Your task to perform on an android device: empty trash in google photos Image 0: 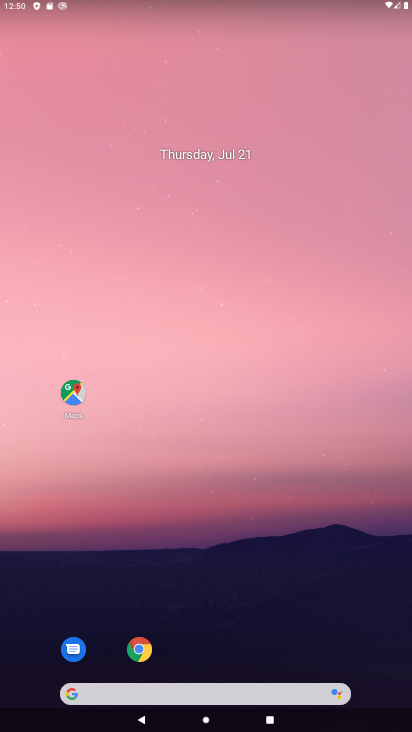
Step 0: drag from (364, 643) to (241, 83)
Your task to perform on an android device: empty trash in google photos Image 1: 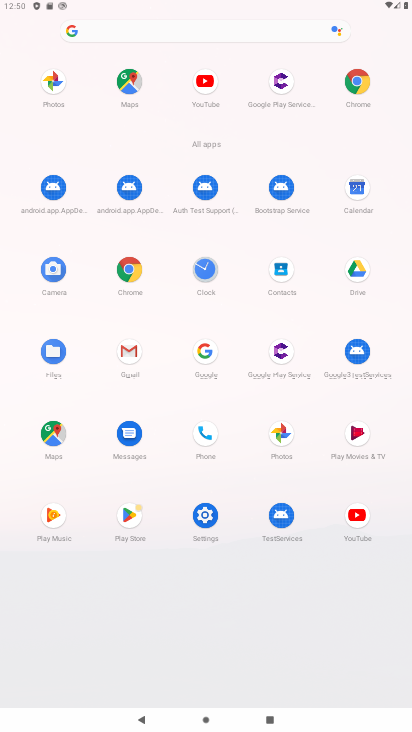
Step 1: click (132, 357)
Your task to perform on an android device: empty trash in google photos Image 2: 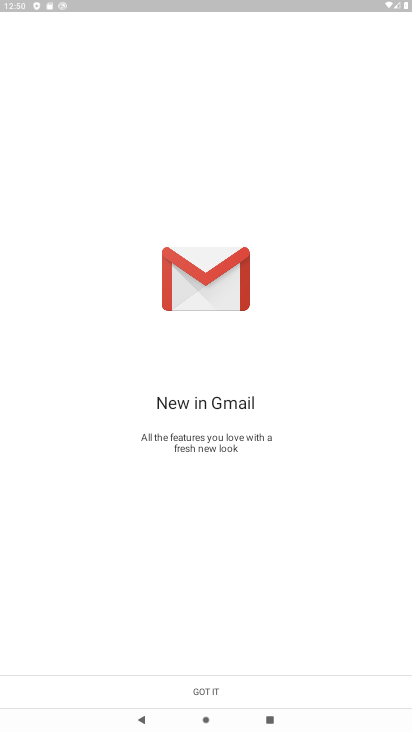
Step 2: click (199, 691)
Your task to perform on an android device: empty trash in google photos Image 3: 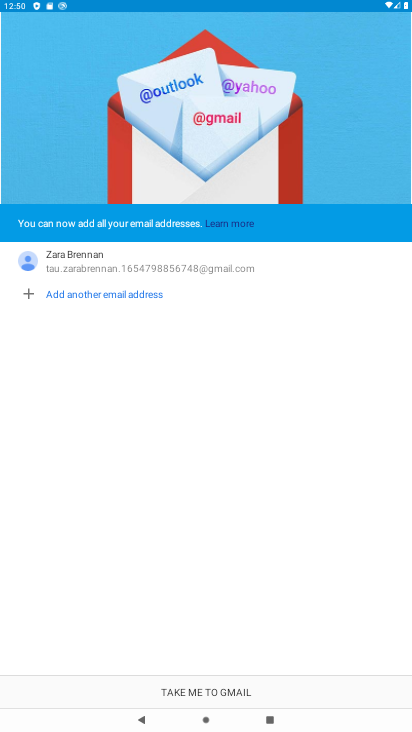
Step 3: click (199, 691)
Your task to perform on an android device: empty trash in google photos Image 4: 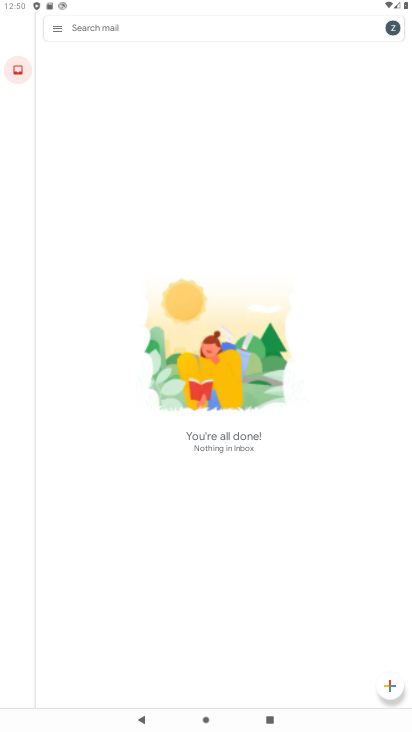
Step 4: click (57, 29)
Your task to perform on an android device: empty trash in google photos Image 5: 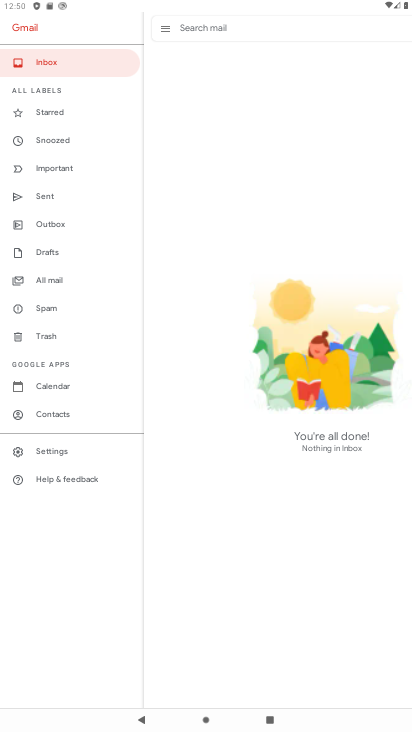
Step 5: click (51, 335)
Your task to perform on an android device: empty trash in google photos Image 6: 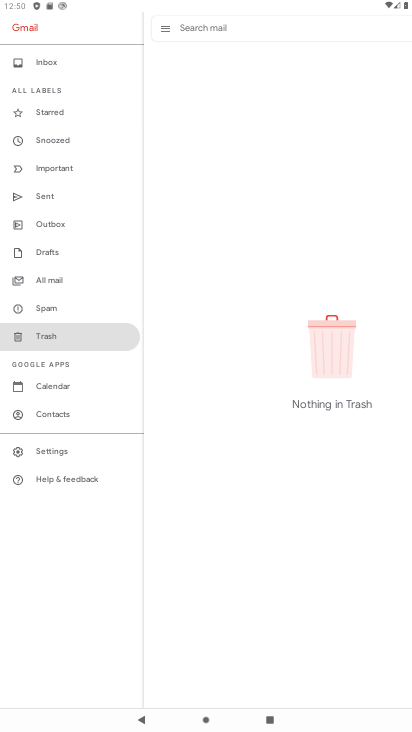
Step 6: press home button
Your task to perform on an android device: empty trash in google photos Image 7: 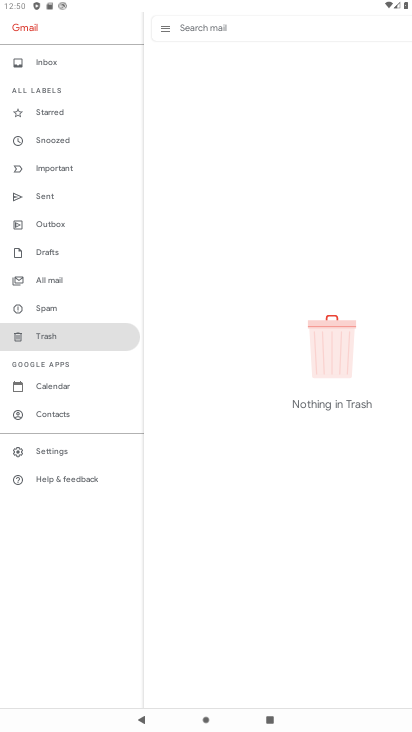
Step 7: press home button
Your task to perform on an android device: empty trash in google photos Image 8: 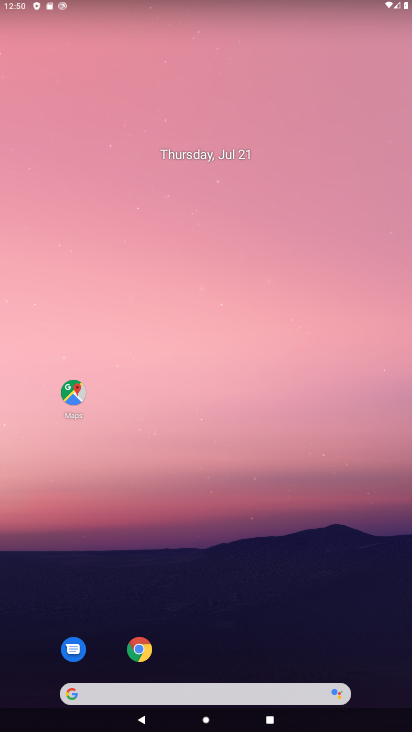
Step 8: drag from (277, 629) to (201, 226)
Your task to perform on an android device: empty trash in google photos Image 9: 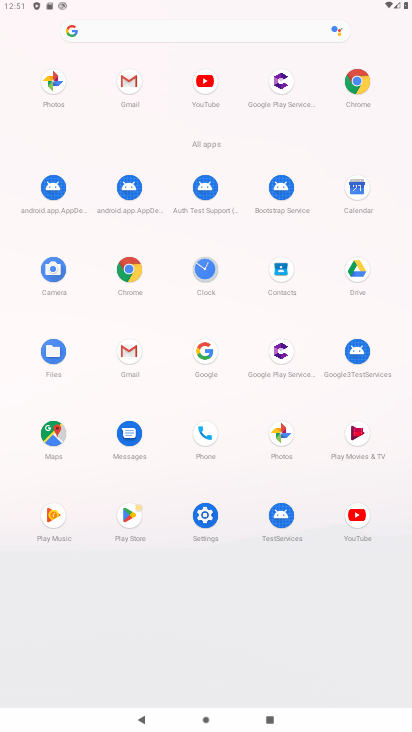
Step 9: click (52, 82)
Your task to perform on an android device: empty trash in google photos Image 10: 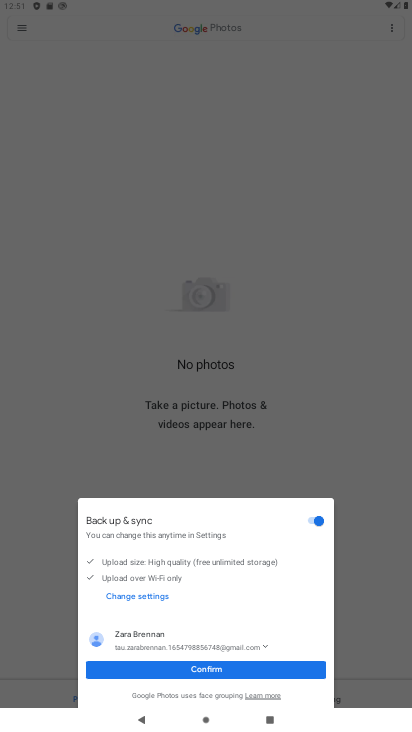
Step 10: click (224, 668)
Your task to perform on an android device: empty trash in google photos Image 11: 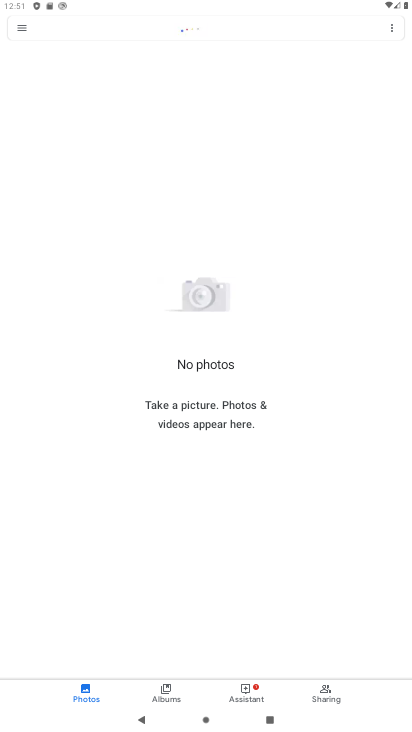
Step 11: click (28, 25)
Your task to perform on an android device: empty trash in google photos Image 12: 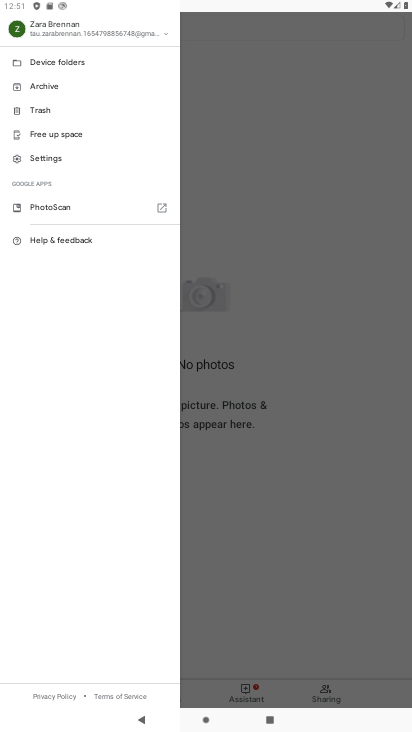
Step 12: click (51, 114)
Your task to perform on an android device: empty trash in google photos Image 13: 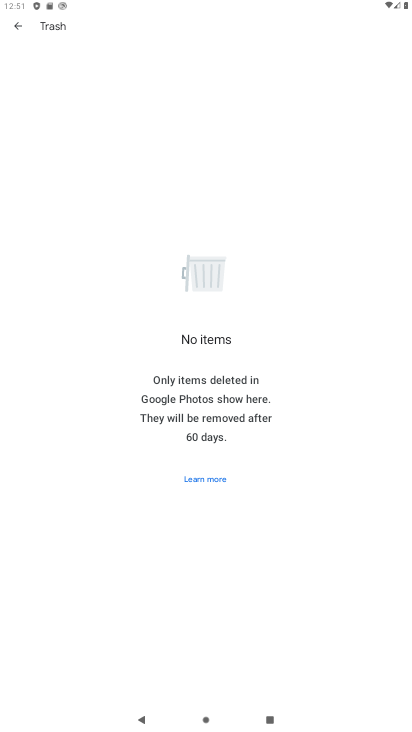
Step 13: task complete